Your task to perform on an android device: toggle notification dots Image 0: 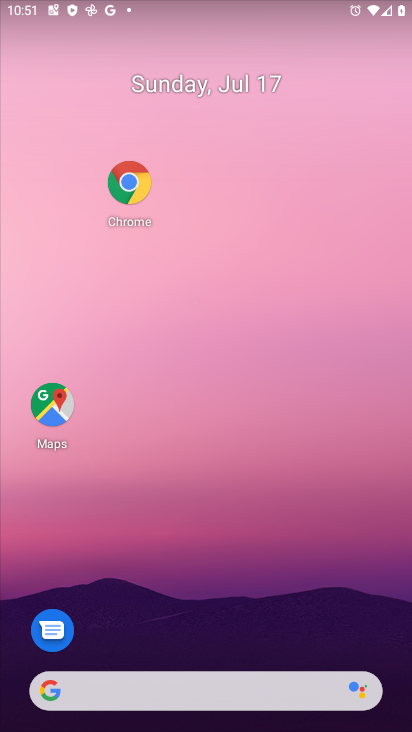
Step 0: drag from (157, 531) to (180, 96)
Your task to perform on an android device: toggle notification dots Image 1: 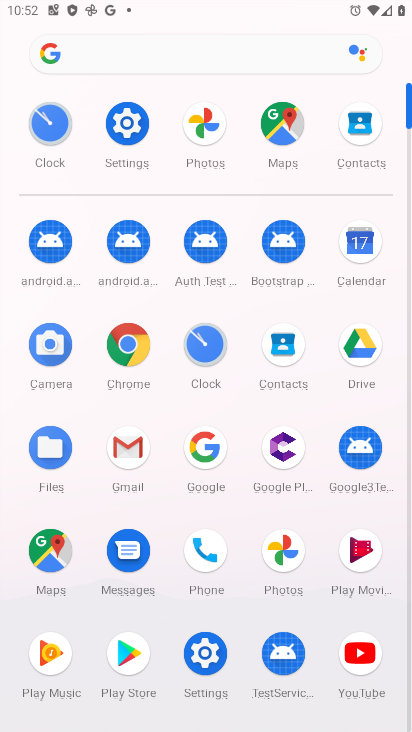
Step 1: click (132, 117)
Your task to perform on an android device: toggle notification dots Image 2: 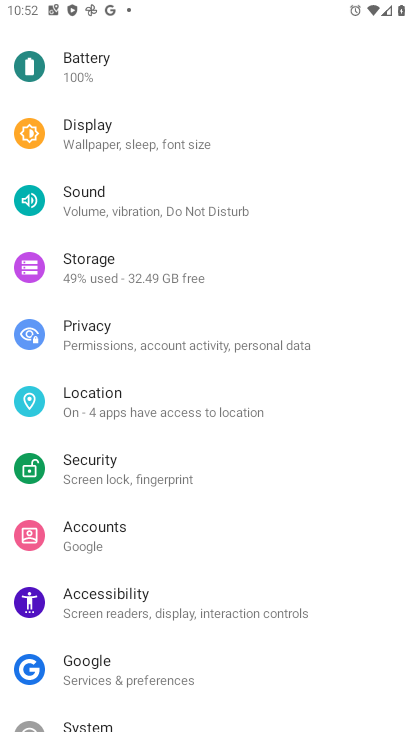
Step 2: drag from (187, 280) to (179, 514)
Your task to perform on an android device: toggle notification dots Image 3: 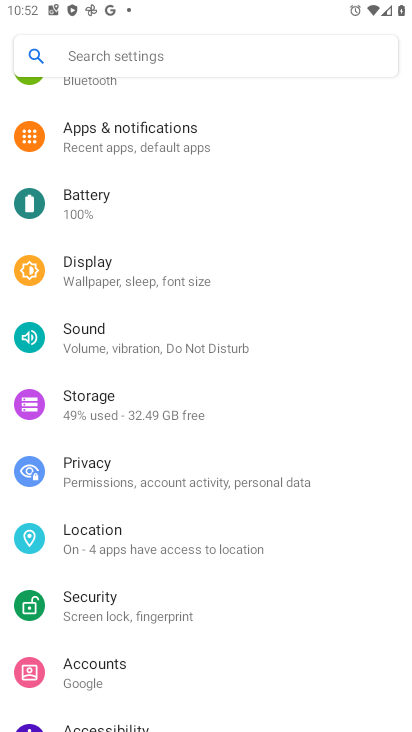
Step 3: click (166, 136)
Your task to perform on an android device: toggle notification dots Image 4: 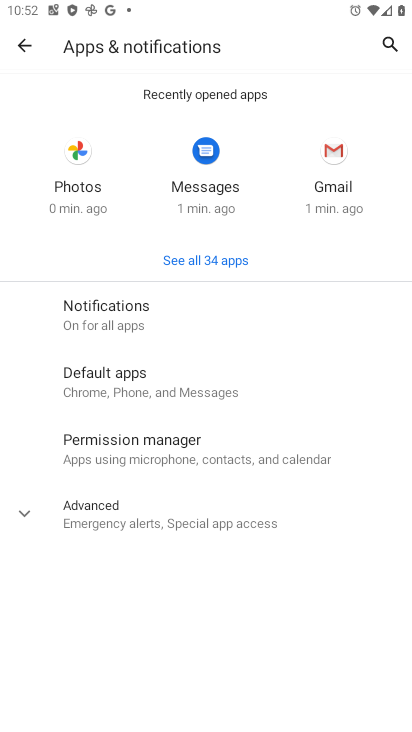
Step 4: click (102, 312)
Your task to perform on an android device: toggle notification dots Image 5: 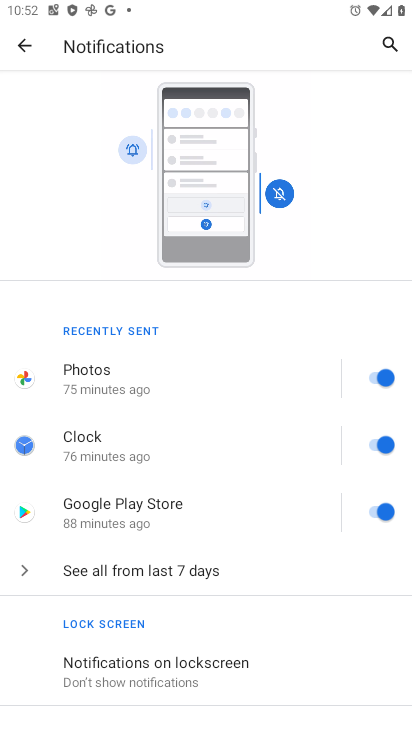
Step 5: drag from (188, 675) to (188, 489)
Your task to perform on an android device: toggle notification dots Image 6: 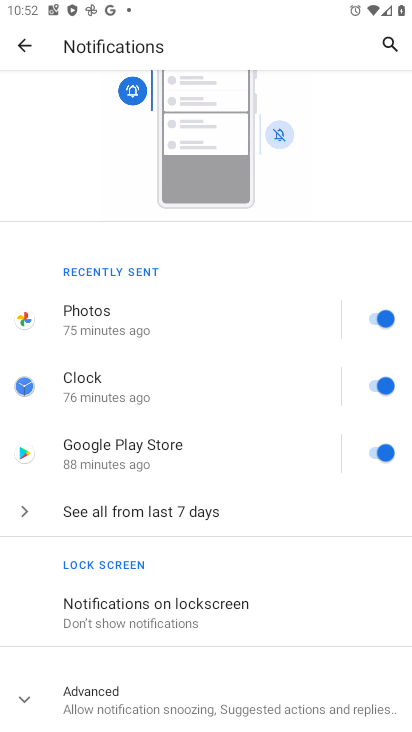
Step 6: click (104, 696)
Your task to perform on an android device: toggle notification dots Image 7: 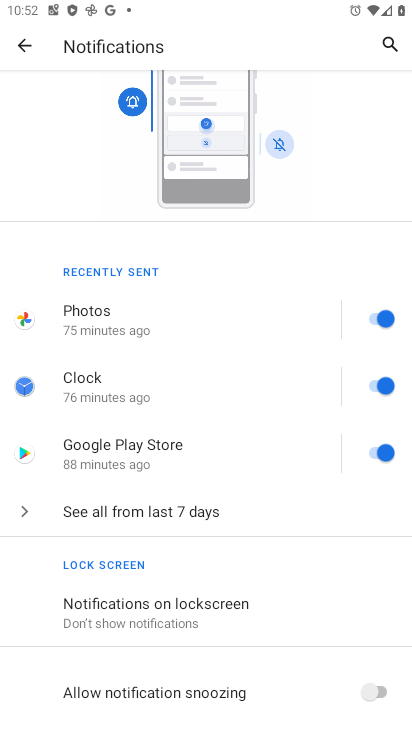
Step 7: drag from (127, 687) to (142, 318)
Your task to perform on an android device: toggle notification dots Image 8: 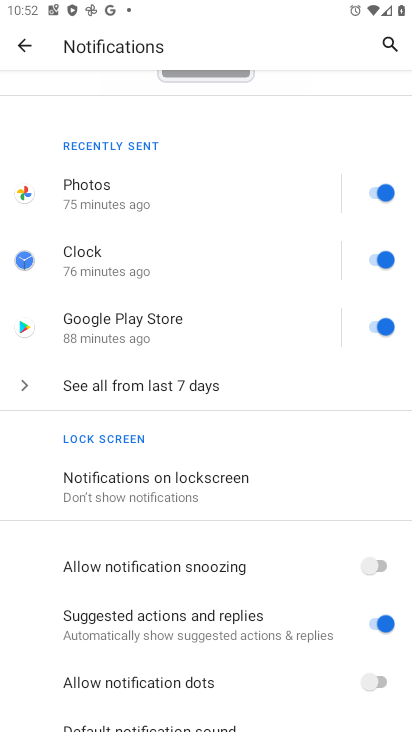
Step 8: drag from (189, 611) to (219, 377)
Your task to perform on an android device: toggle notification dots Image 9: 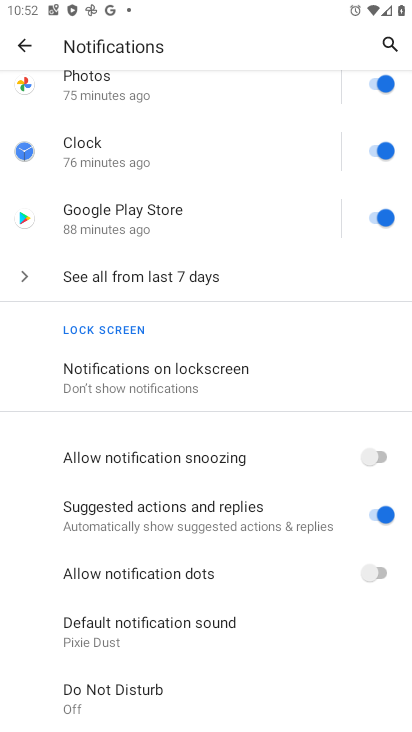
Step 9: click (384, 566)
Your task to perform on an android device: toggle notification dots Image 10: 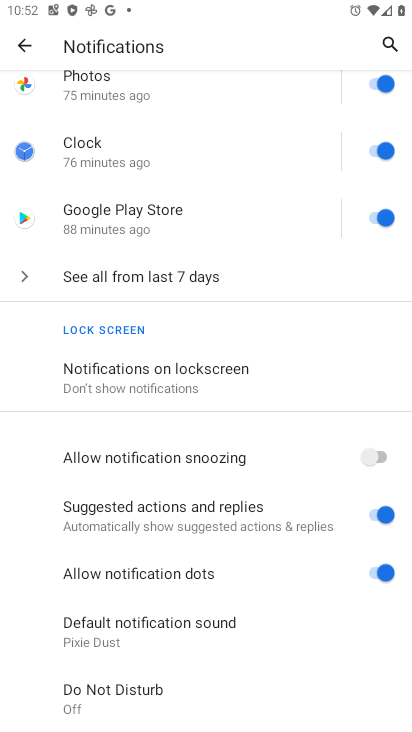
Step 10: task complete